Your task to perform on an android device: turn off airplane mode Image 0: 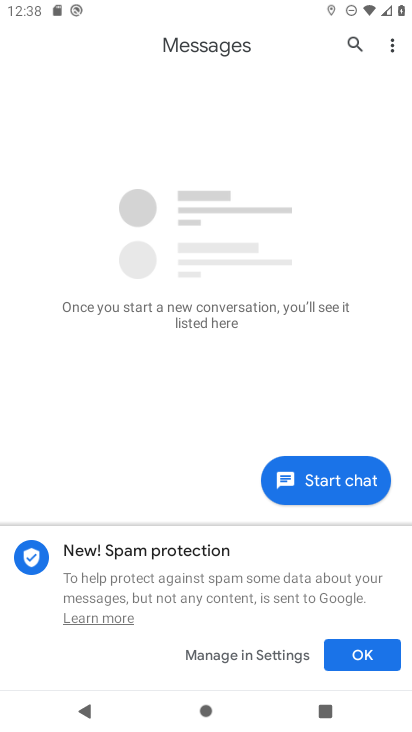
Step 0: press home button
Your task to perform on an android device: turn off airplane mode Image 1: 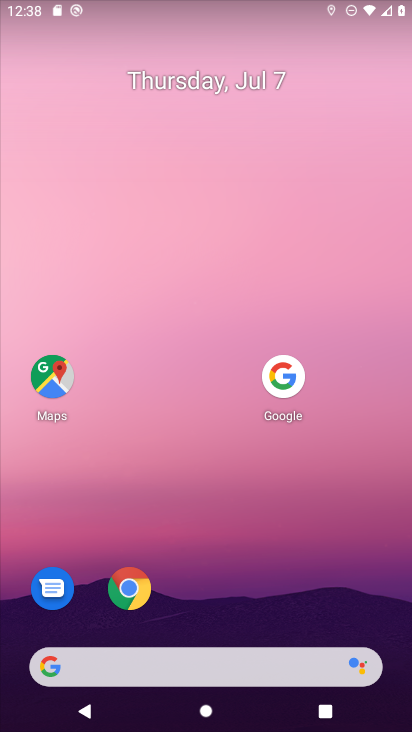
Step 1: drag from (214, 665) to (355, 151)
Your task to perform on an android device: turn off airplane mode Image 2: 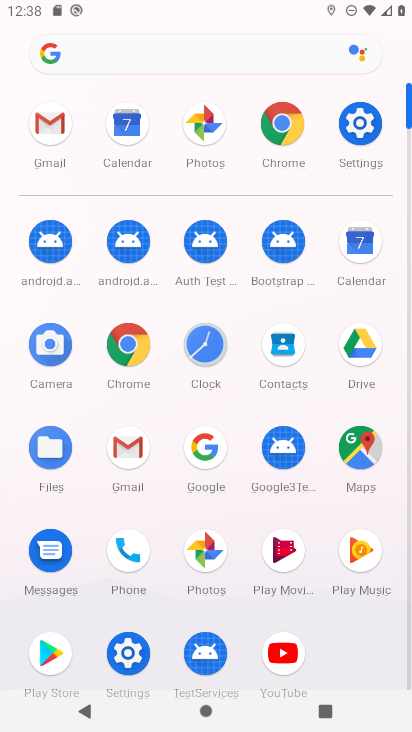
Step 2: click (364, 132)
Your task to perform on an android device: turn off airplane mode Image 3: 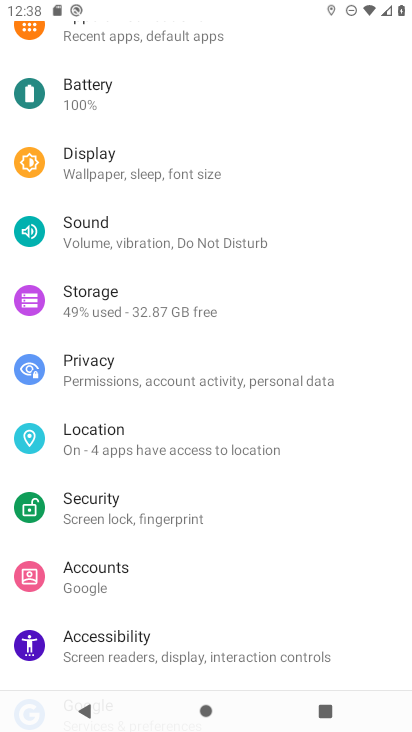
Step 3: drag from (244, 137) to (138, 534)
Your task to perform on an android device: turn off airplane mode Image 4: 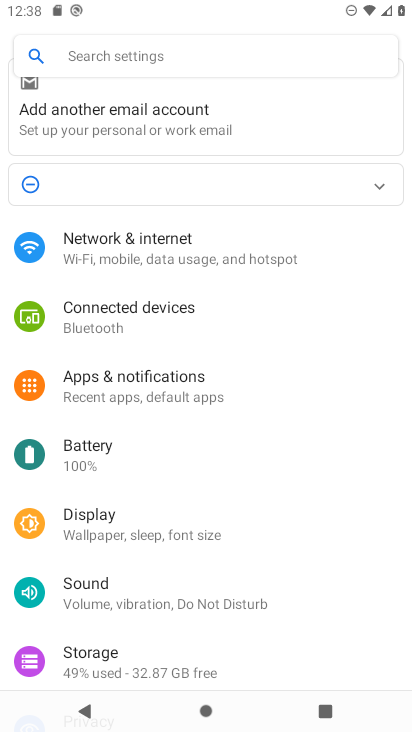
Step 4: click (169, 249)
Your task to perform on an android device: turn off airplane mode Image 5: 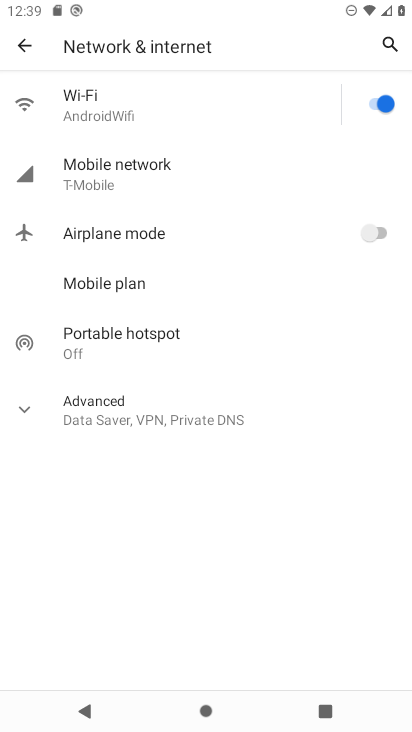
Step 5: task complete